Your task to perform on an android device: Open the web browser Image 0: 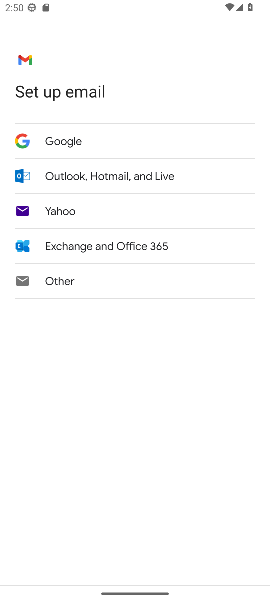
Step 0: press home button
Your task to perform on an android device: Open the web browser Image 1: 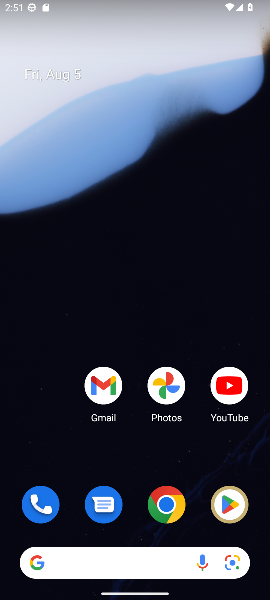
Step 1: task complete